Your task to perform on an android device: check android version Image 0: 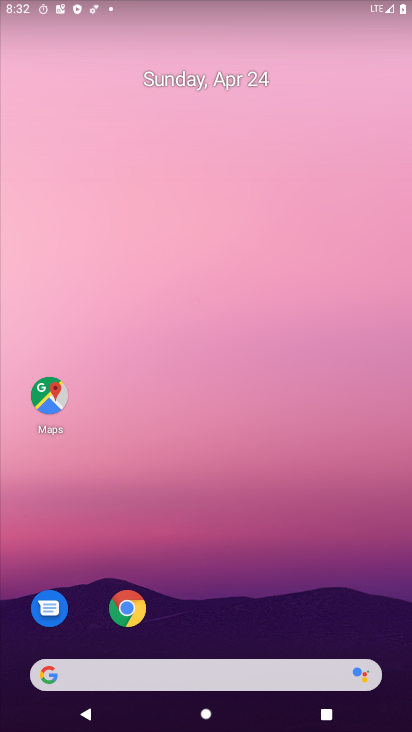
Step 0: drag from (259, 605) to (299, 84)
Your task to perform on an android device: check android version Image 1: 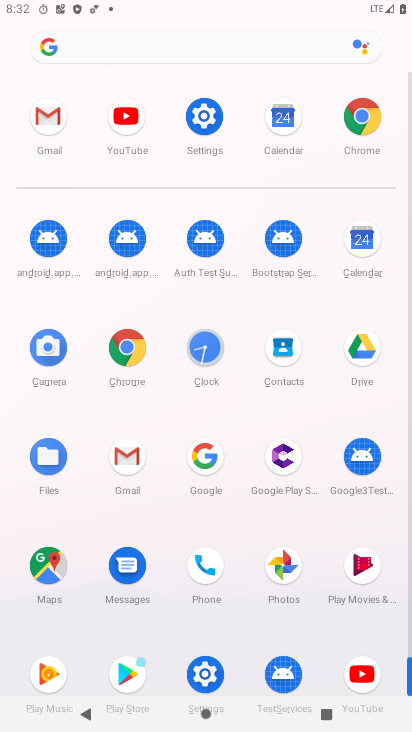
Step 1: click (196, 111)
Your task to perform on an android device: check android version Image 2: 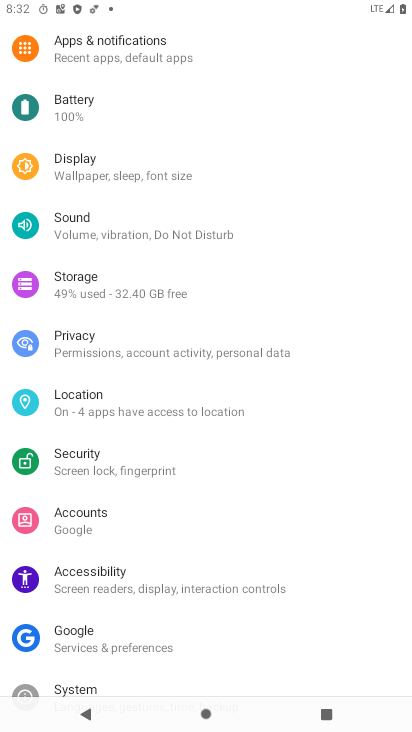
Step 2: drag from (228, 617) to (231, 207)
Your task to perform on an android device: check android version Image 3: 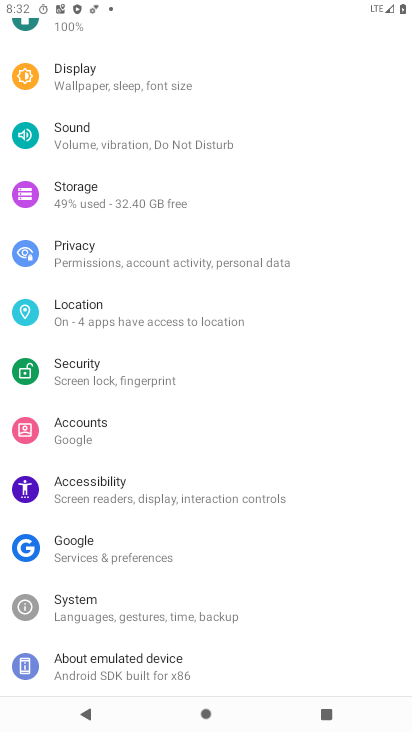
Step 3: click (170, 666)
Your task to perform on an android device: check android version Image 4: 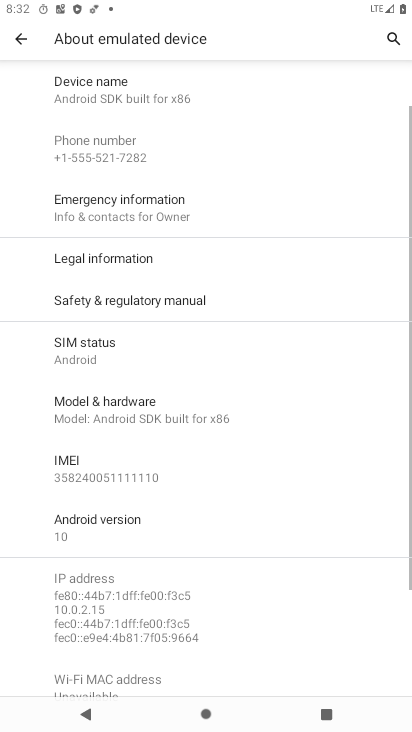
Step 4: drag from (288, 500) to (279, 184)
Your task to perform on an android device: check android version Image 5: 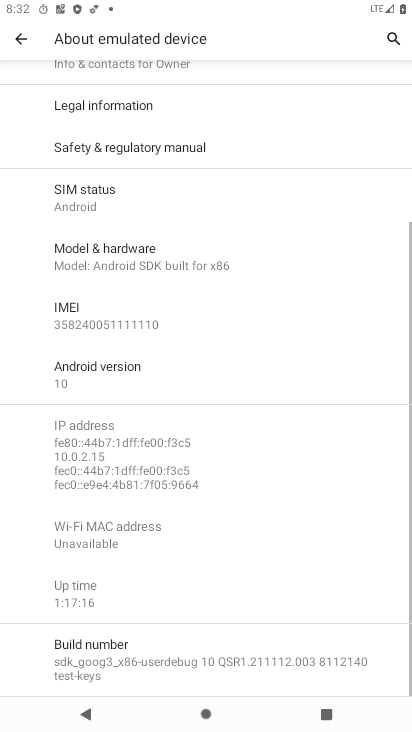
Step 5: click (160, 369)
Your task to perform on an android device: check android version Image 6: 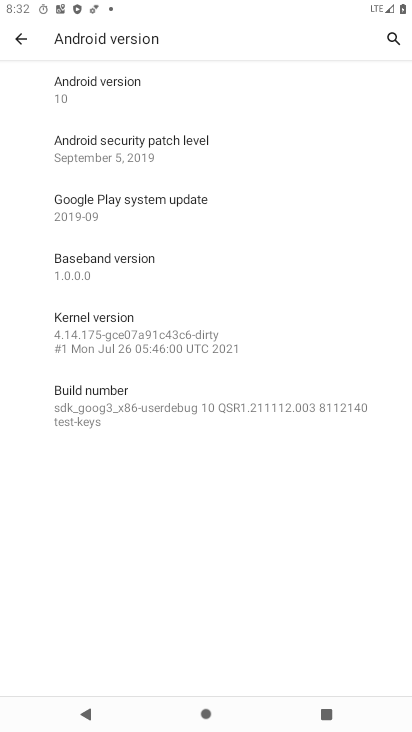
Step 6: task complete